Your task to perform on an android device: empty trash in google photos Image 0: 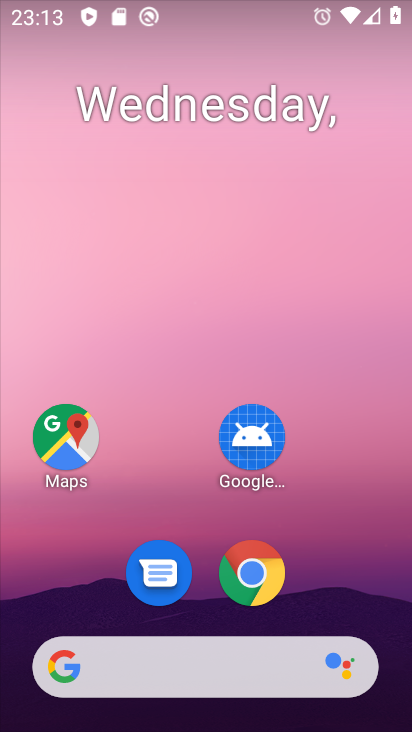
Step 0: drag from (173, 511) to (258, 39)
Your task to perform on an android device: empty trash in google photos Image 1: 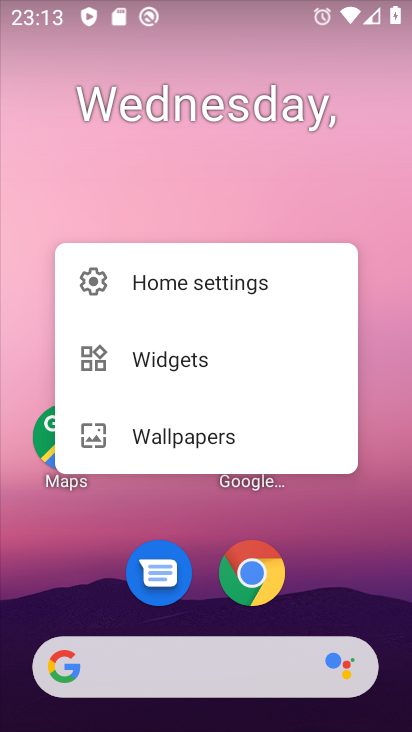
Step 1: click (341, 542)
Your task to perform on an android device: empty trash in google photos Image 2: 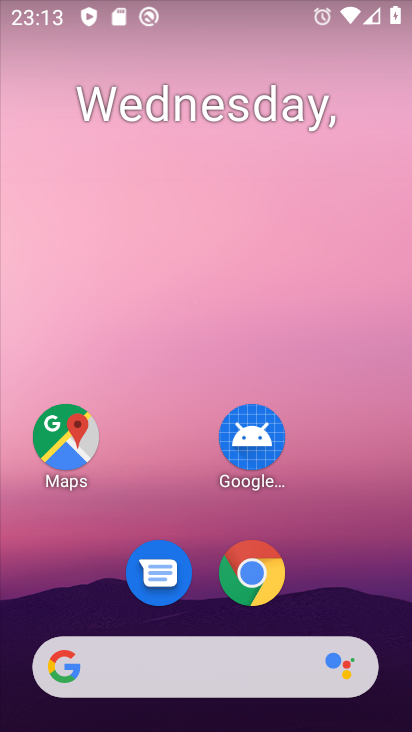
Step 2: drag from (341, 542) to (263, 8)
Your task to perform on an android device: empty trash in google photos Image 3: 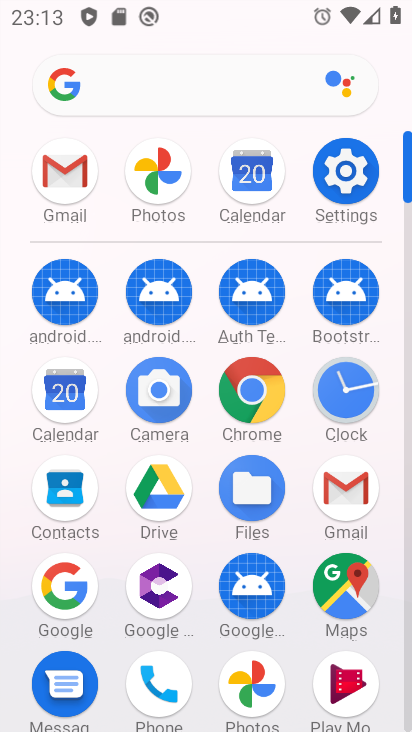
Step 3: drag from (204, 545) to (225, 176)
Your task to perform on an android device: empty trash in google photos Image 4: 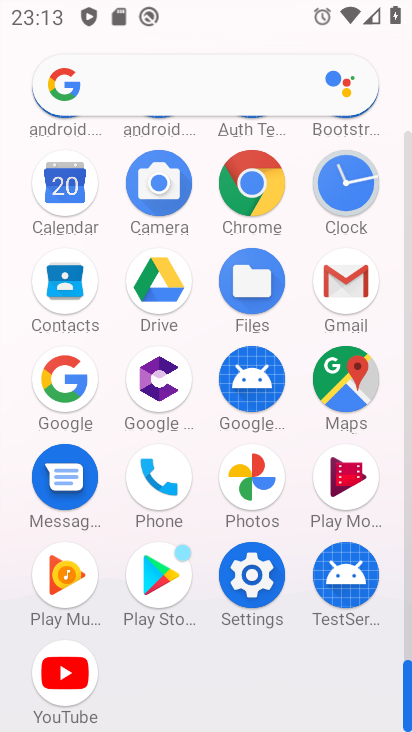
Step 4: click (252, 478)
Your task to perform on an android device: empty trash in google photos Image 5: 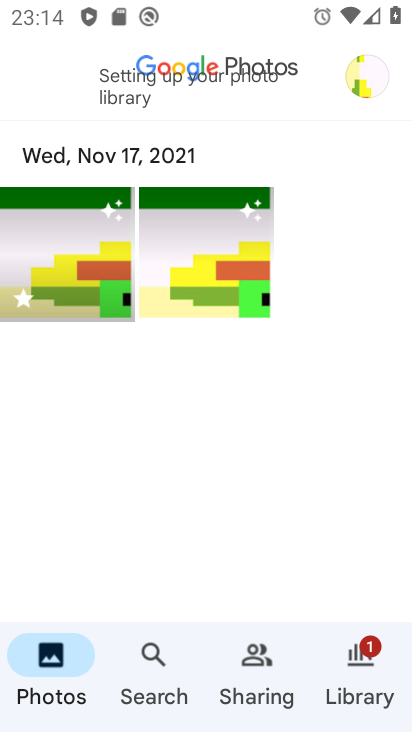
Step 5: click (368, 657)
Your task to perform on an android device: empty trash in google photos Image 6: 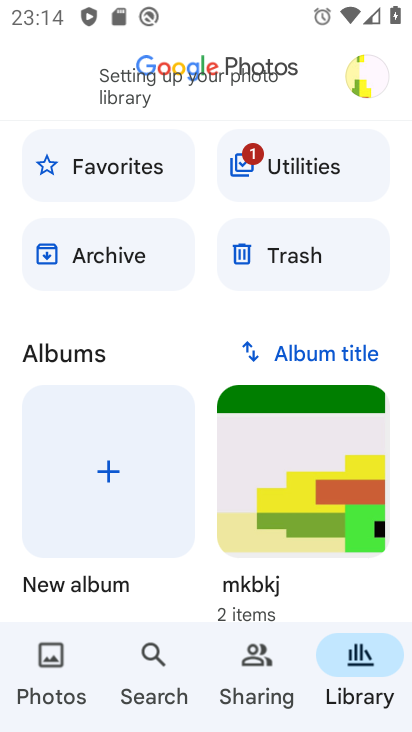
Step 6: click (296, 254)
Your task to perform on an android device: empty trash in google photos Image 7: 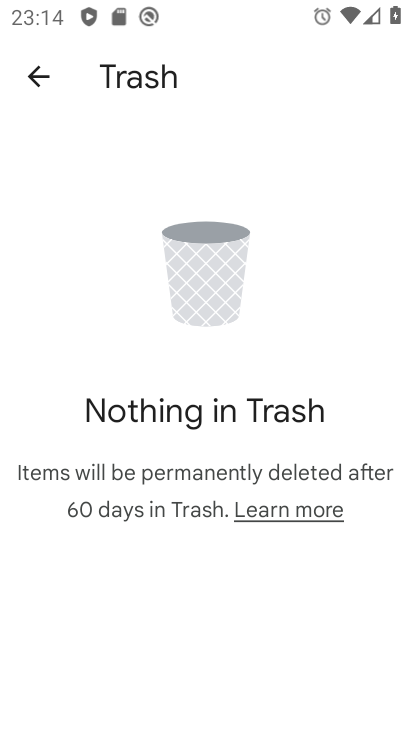
Step 7: task complete